Your task to perform on an android device: Open Android settings Image 0: 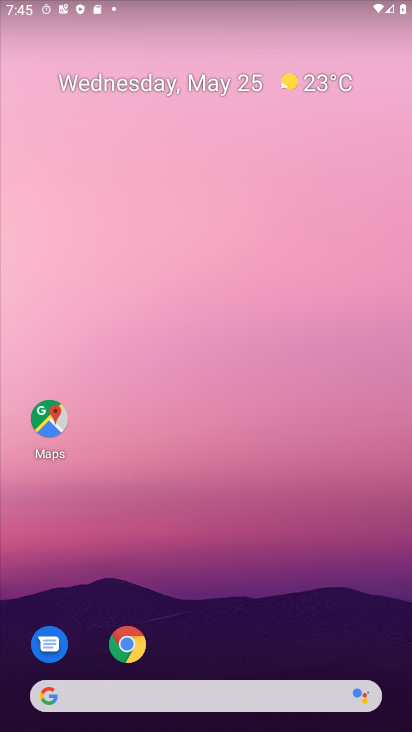
Step 0: drag from (266, 710) to (377, 38)
Your task to perform on an android device: Open Android settings Image 1: 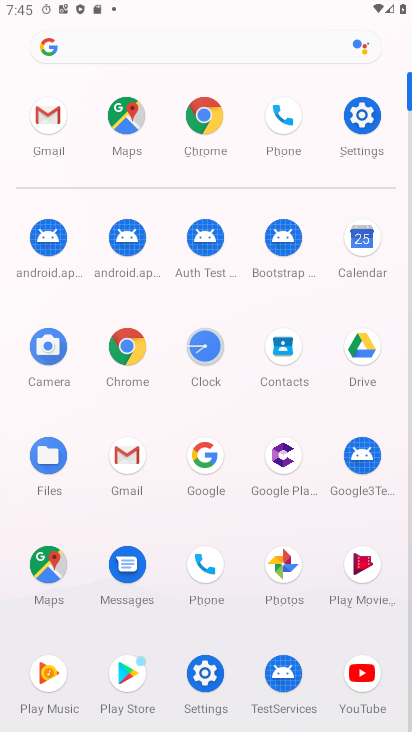
Step 1: click (372, 127)
Your task to perform on an android device: Open Android settings Image 2: 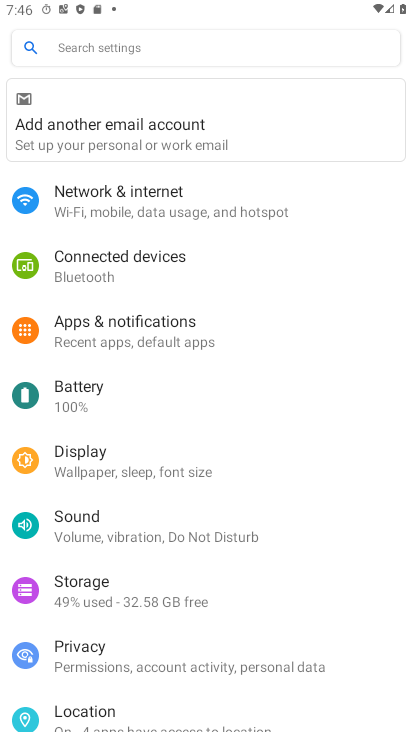
Step 2: click (124, 53)
Your task to perform on an android device: Open Android settings Image 3: 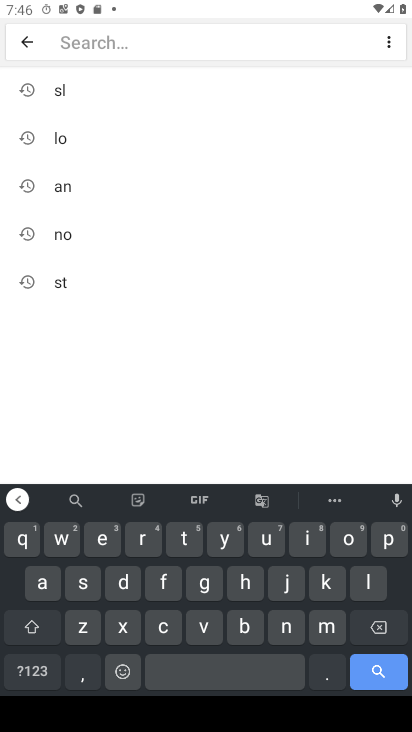
Step 3: click (39, 582)
Your task to perform on an android device: Open Android settings Image 4: 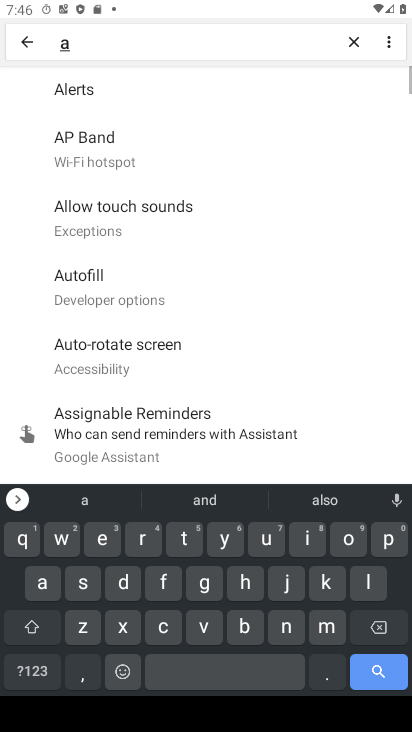
Step 4: click (290, 654)
Your task to perform on an android device: Open Android settings Image 5: 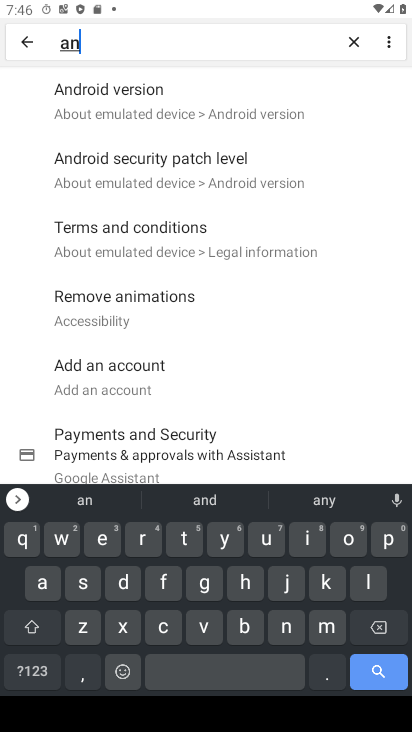
Step 5: click (135, 100)
Your task to perform on an android device: Open Android settings Image 6: 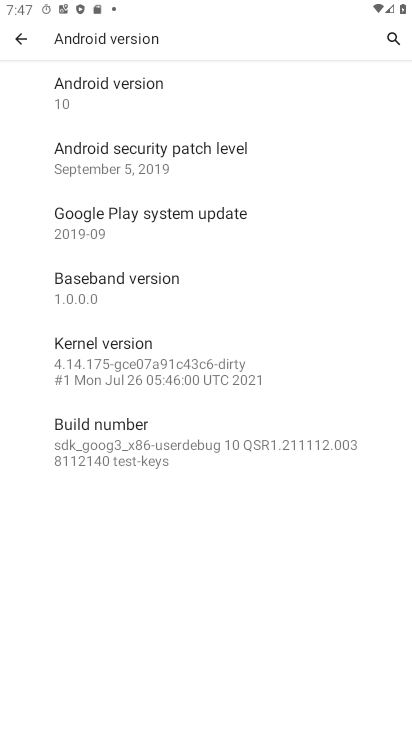
Step 6: click (157, 105)
Your task to perform on an android device: Open Android settings Image 7: 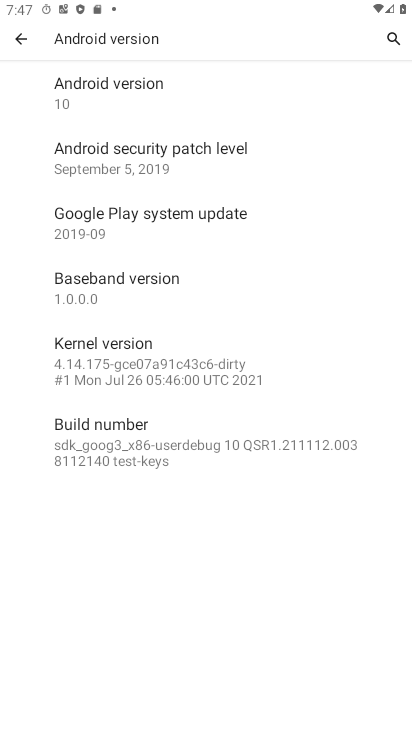
Step 7: task complete